Your task to perform on an android device: Open Youtube and go to "Your channel" Image 0: 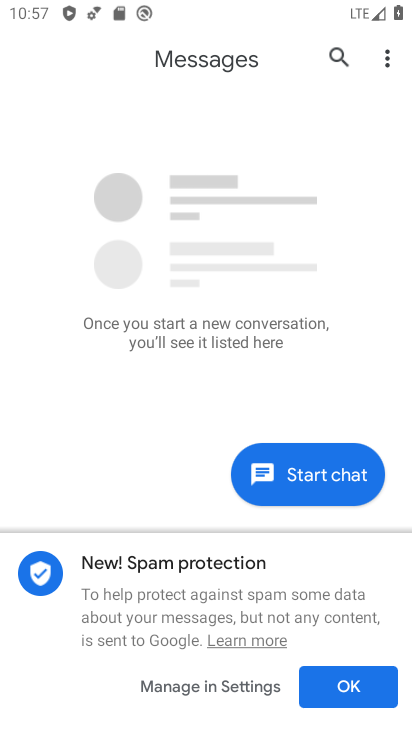
Step 0: press home button
Your task to perform on an android device: Open Youtube and go to "Your channel" Image 1: 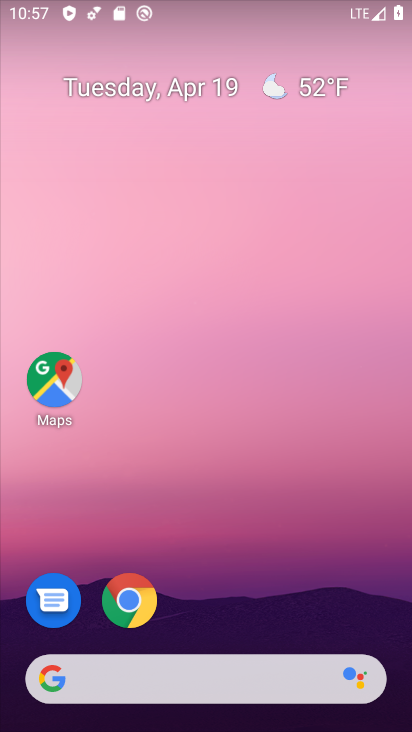
Step 1: drag from (224, 640) to (177, 153)
Your task to perform on an android device: Open Youtube and go to "Your channel" Image 2: 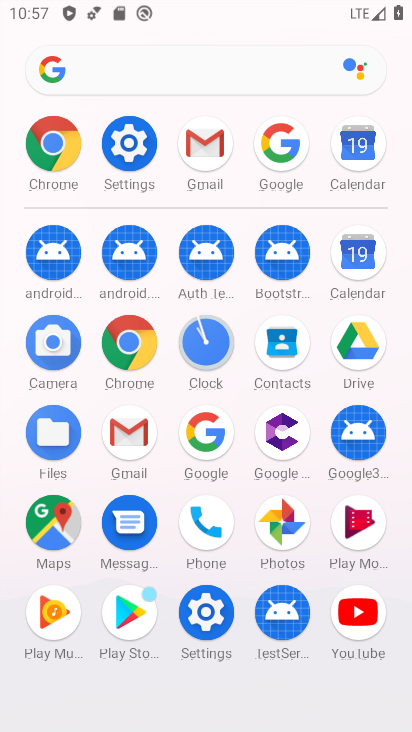
Step 2: click (355, 630)
Your task to perform on an android device: Open Youtube and go to "Your channel" Image 3: 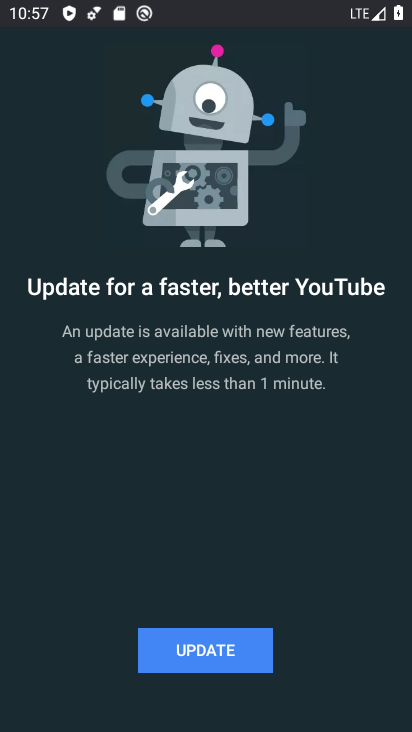
Step 3: click (217, 658)
Your task to perform on an android device: Open Youtube and go to "Your channel" Image 4: 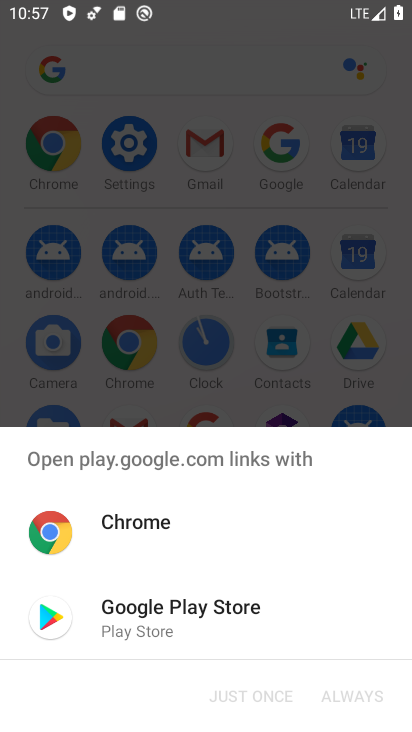
Step 4: task complete